Your task to perform on an android device: turn notification dots on Image 0: 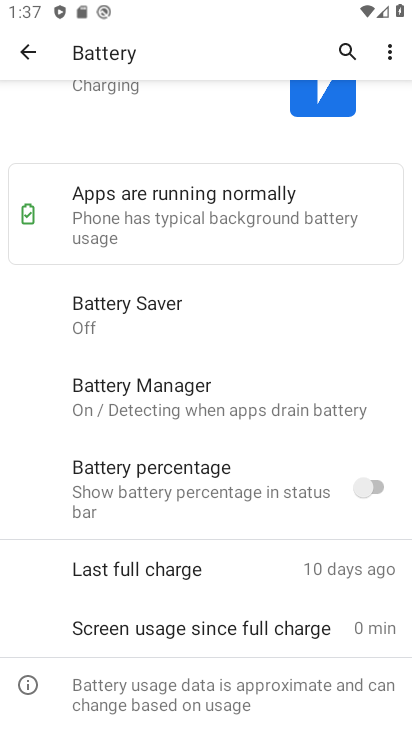
Step 0: press home button
Your task to perform on an android device: turn notification dots on Image 1: 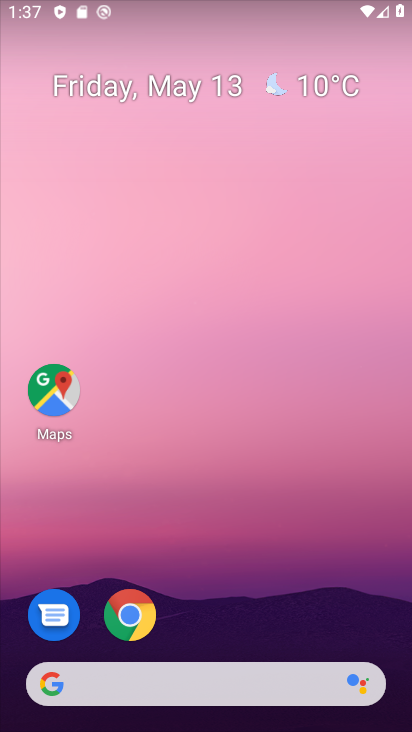
Step 1: drag from (205, 554) to (192, 142)
Your task to perform on an android device: turn notification dots on Image 2: 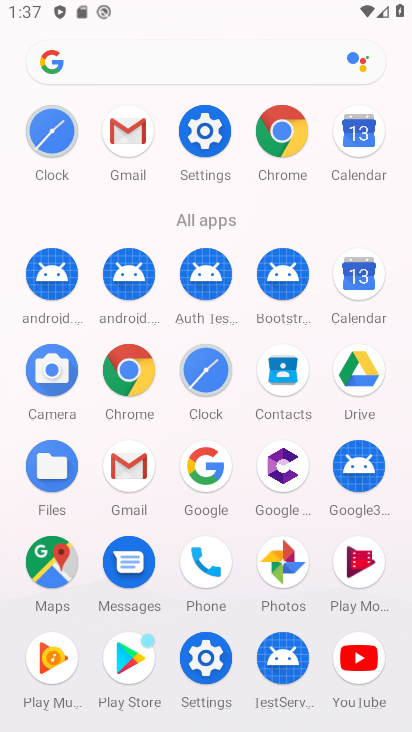
Step 2: click (199, 138)
Your task to perform on an android device: turn notification dots on Image 3: 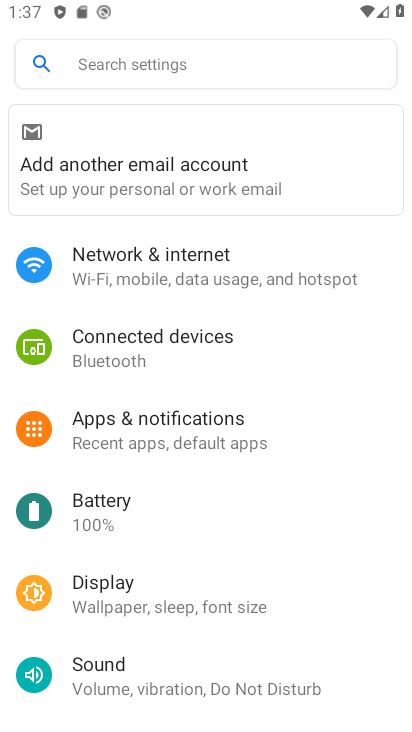
Step 3: click (145, 424)
Your task to perform on an android device: turn notification dots on Image 4: 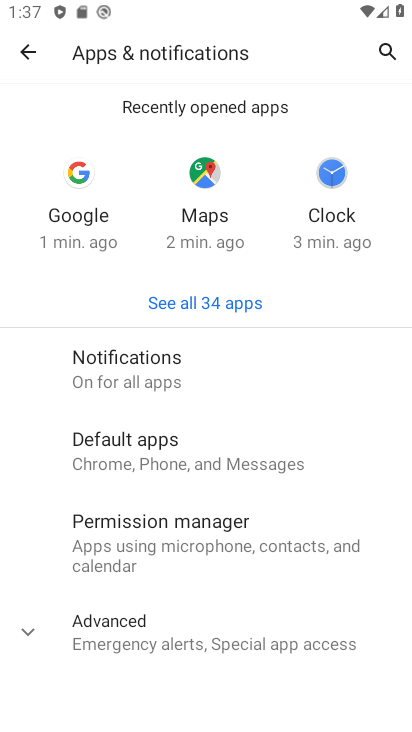
Step 4: click (135, 375)
Your task to perform on an android device: turn notification dots on Image 5: 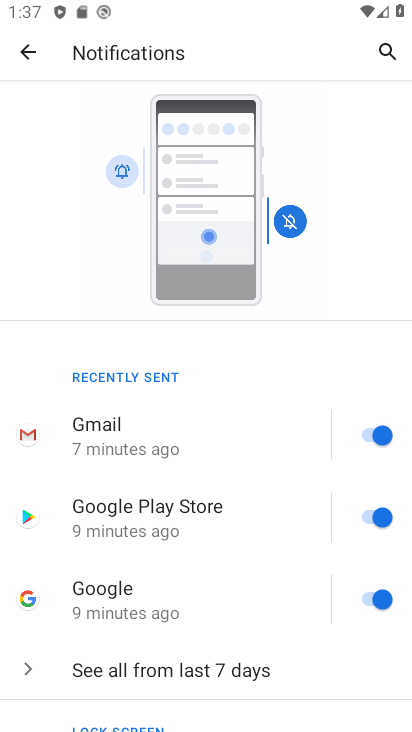
Step 5: drag from (150, 599) to (146, 251)
Your task to perform on an android device: turn notification dots on Image 6: 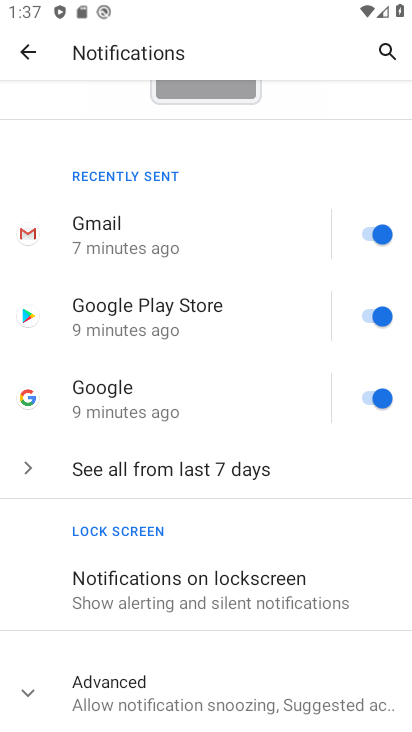
Step 6: click (141, 701)
Your task to perform on an android device: turn notification dots on Image 7: 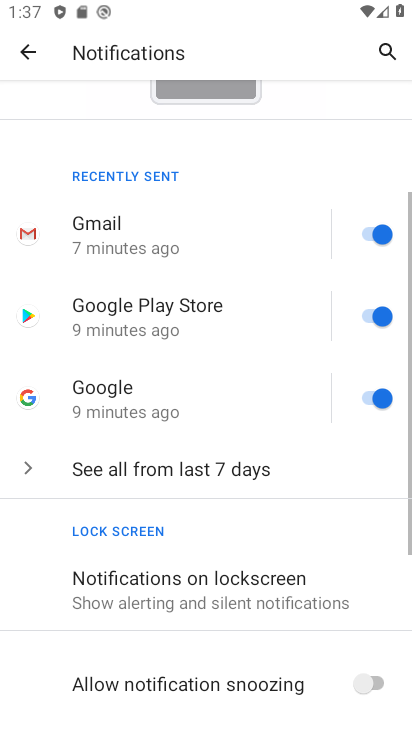
Step 7: task complete